Your task to perform on an android device: Open the map Image 0: 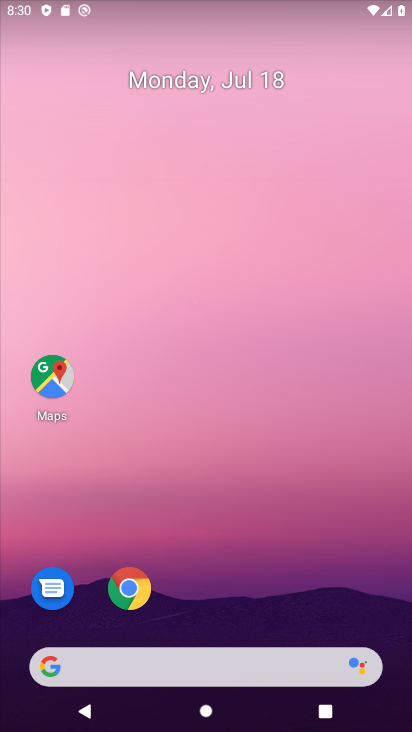
Step 0: drag from (263, 570) to (281, 60)
Your task to perform on an android device: Open the map Image 1: 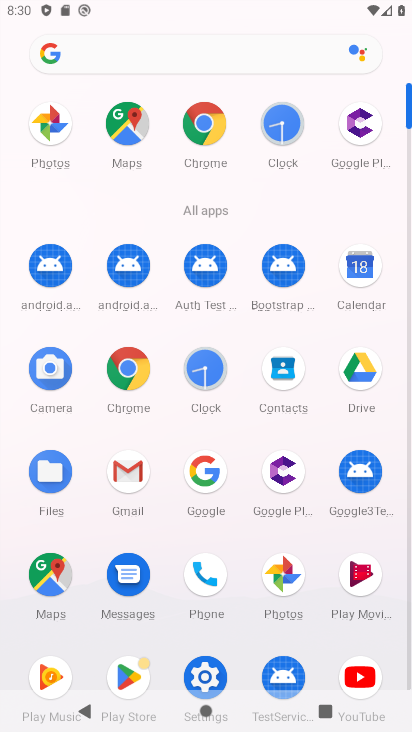
Step 1: click (49, 574)
Your task to perform on an android device: Open the map Image 2: 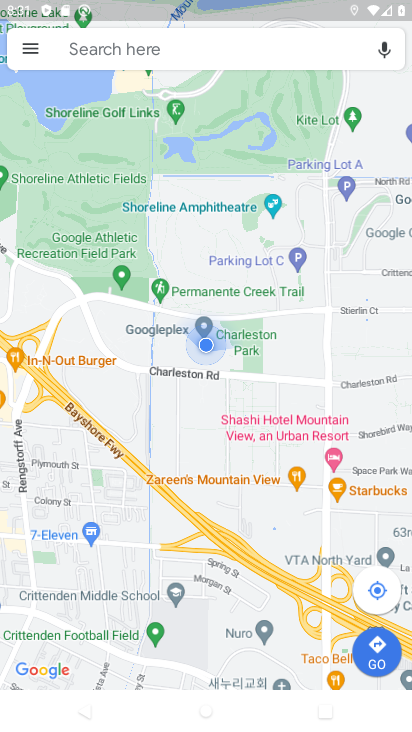
Step 2: task complete